Your task to perform on an android device: What's on my calendar tomorrow? Image 0: 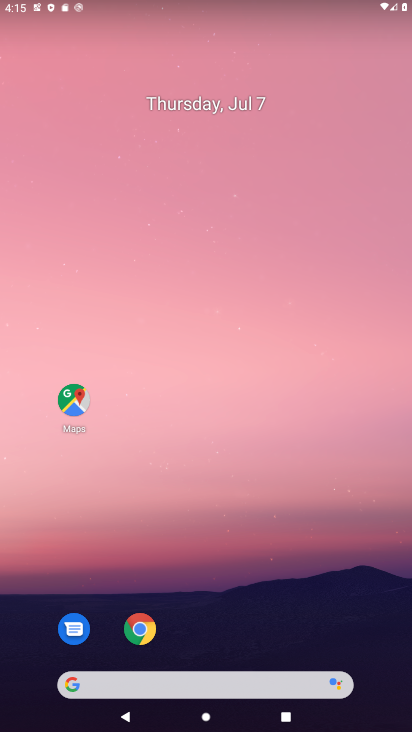
Step 0: drag from (271, 629) to (253, 106)
Your task to perform on an android device: What's on my calendar tomorrow? Image 1: 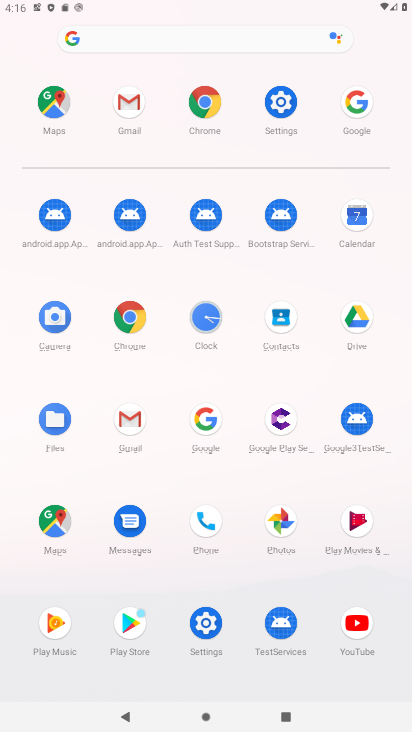
Step 1: click (345, 219)
Your task to perform on an android device: What's on my calendar tomorrow? Image 2: 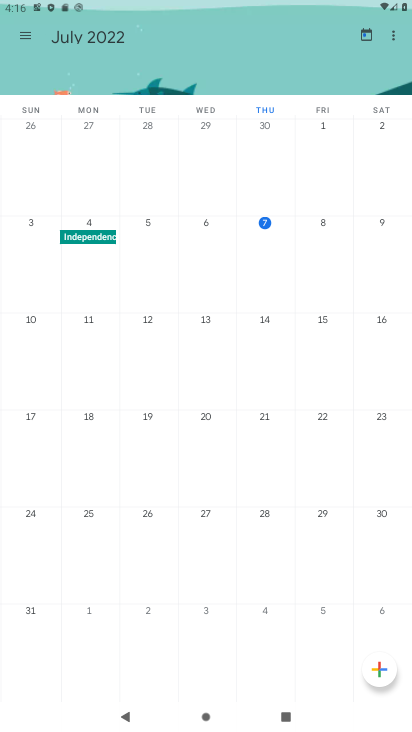
Step 2: click (314, 249)
Your task to perform on an android device: What's on my calendar tomorrow? Image 3: 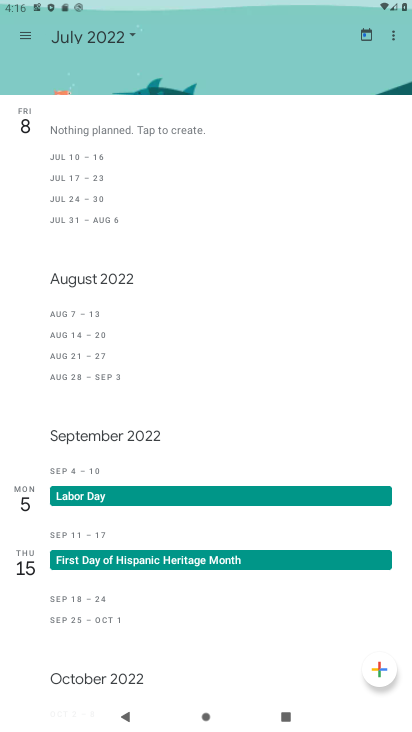
Step 3: task complete